Your task to perform on an android device: Open settings on Google Maps Image 0: 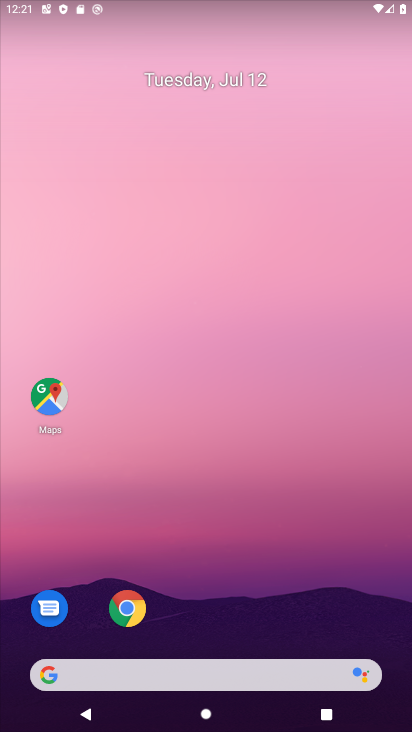
Step 0: click (45, 412)
Your task to perform on an android device: Open settings on Google Maps Image 1: 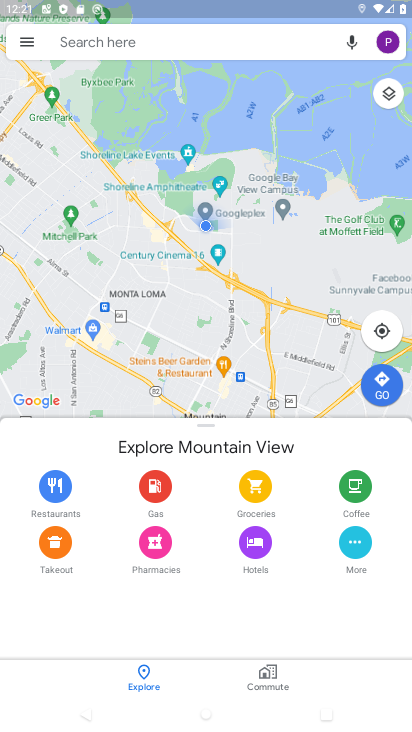
Step 1: click (24, 49)
Your task to perform on an android device: Open settings on Google Maps Image 2: 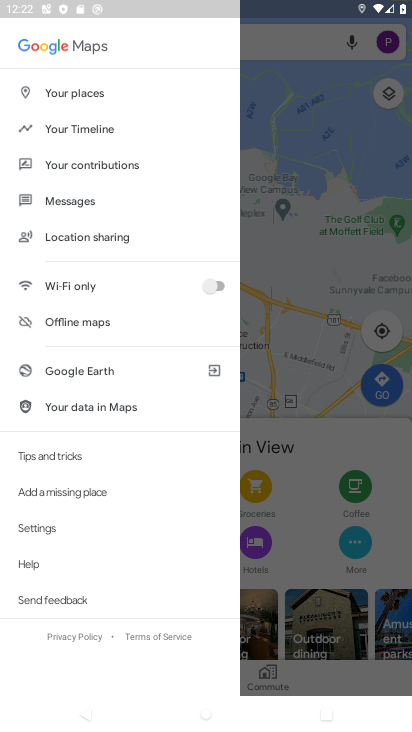
Step 2: click (39, 537)
Your task to perform on an android device: Open settings on Google Maps Image 3: 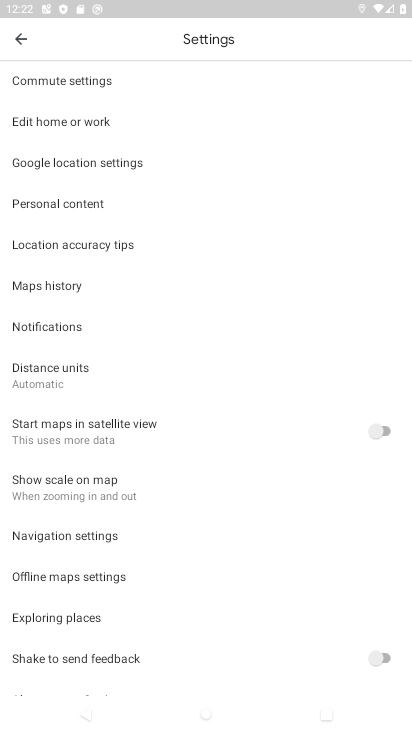
Step 3: task complete